Your task to perform on an android device: add a contact in the contacts app Image 0: 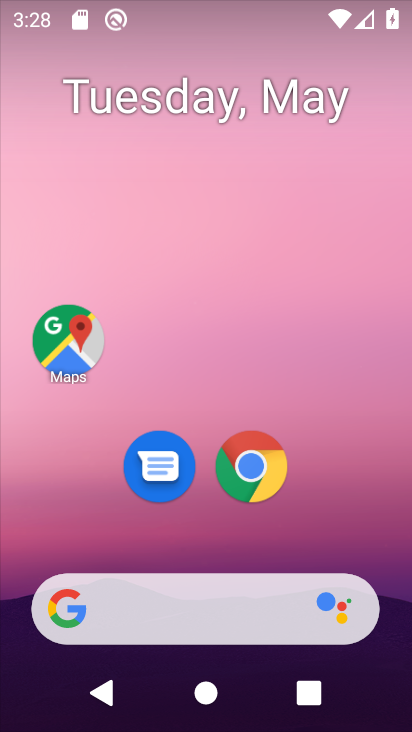
Step 0: drag from (275, 519) to (329, 78)
Your task to perform on an android device: add a contact in the contacts app Image 1: 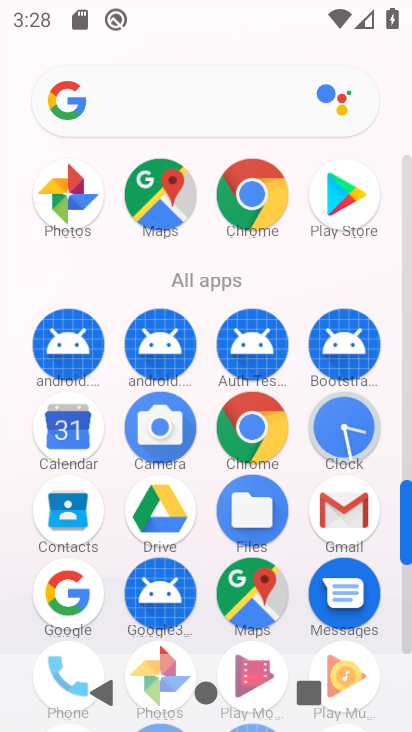
Step 1: drag from (202, 302) to (214, 53)
Your task to perform on an android device: add a contact in the contacts app Image 2: 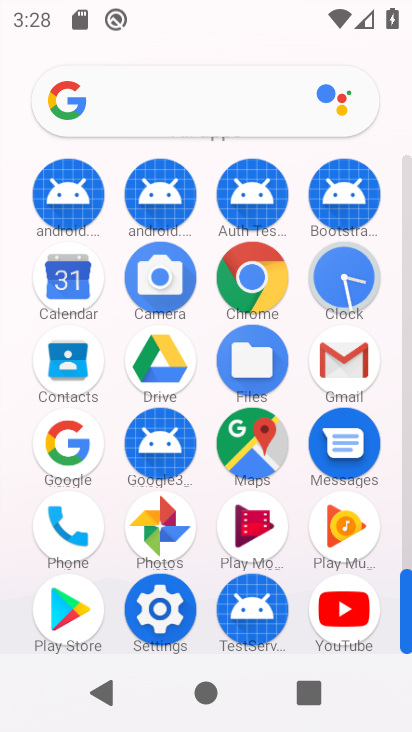
Step 2: click (69, 356)
Your task to perform on an android device: add a contact in the contacts app Image 3: 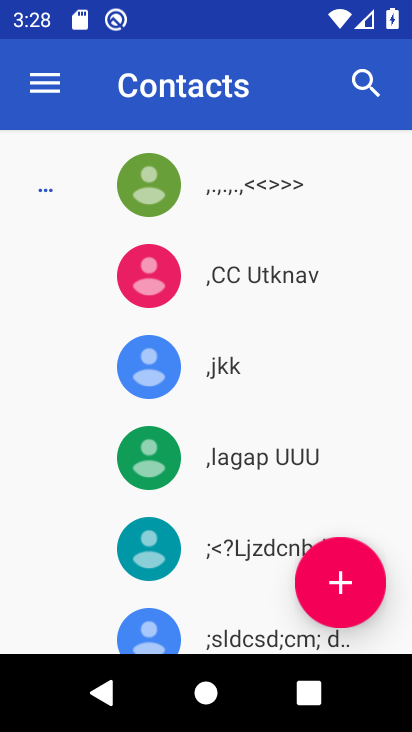
Step 3: click (332, 591)
Your task to perform on an android device: add a contact in the contacts app Image 4: 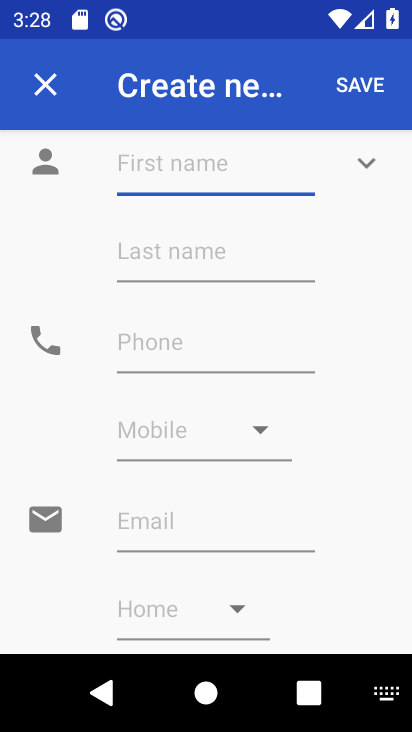
Step 4: type "mmmkk"
Your task to perform on an android device: add a contact in the contacts app Image 5: 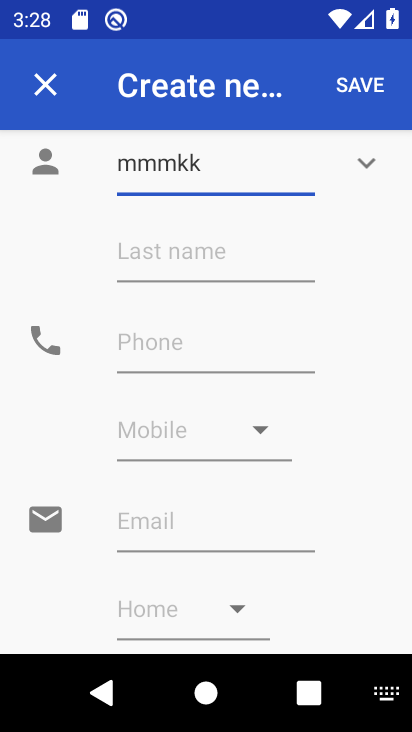
Step 5: click (271, 338)
Your task to perform on an android device: add a contact in the contacts app Image 6: 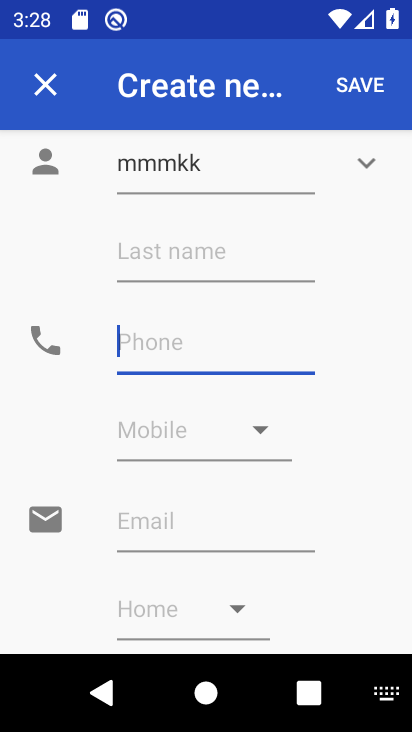
Step 6: type "0912"
Your task to perform on an android device: add a contact in the contacts app Image 7: 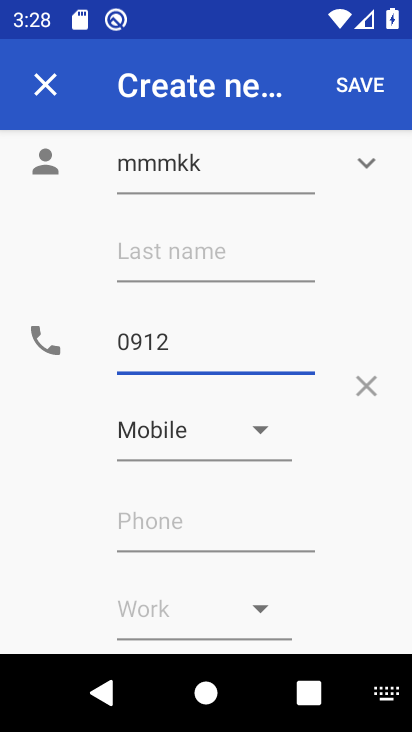
Step 7: click (377, 98)
Your task to perform on an android device: add a contact in the contacts app Image 8: 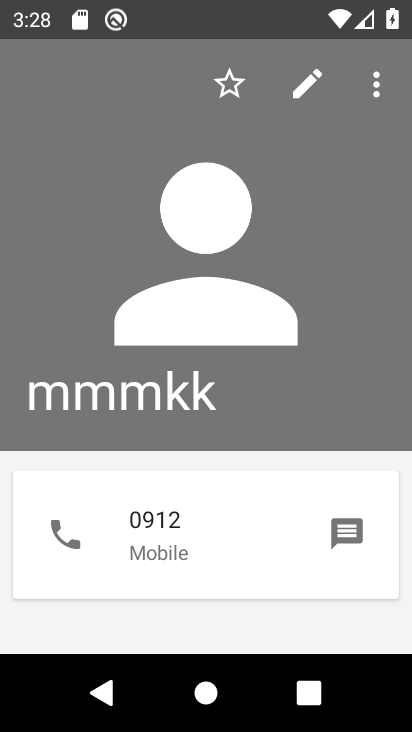
Step 8: task complete